Your task to perform on an android device: Add logitech g pro to the cart on amazon, then select checkout. Image 0: 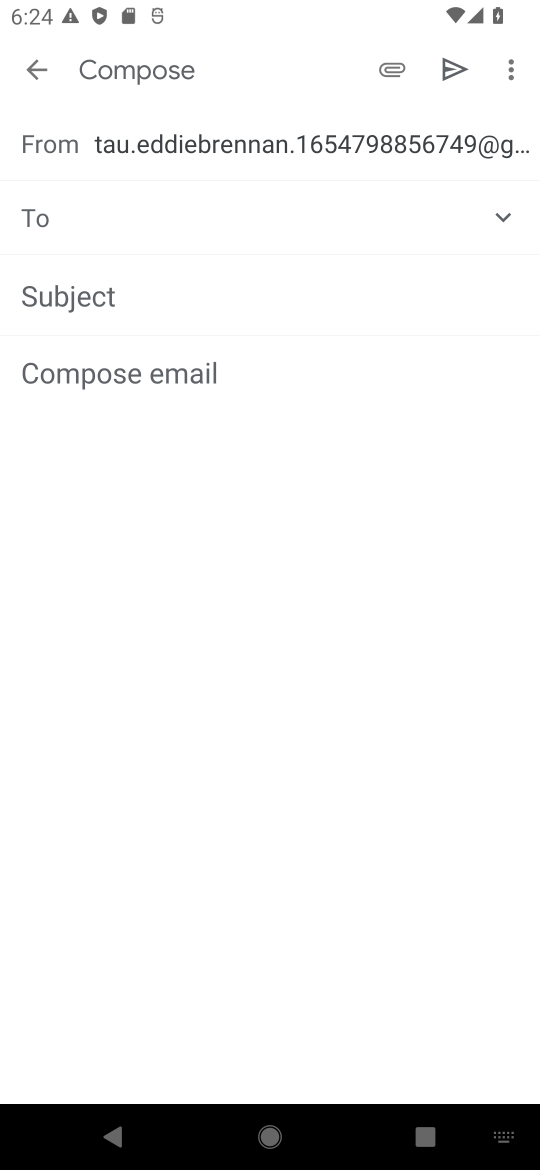
Step 0: press home button
Your task to perform on an android device: Add logitech g pro to the cart on amazon, then select checkout. Image 1: 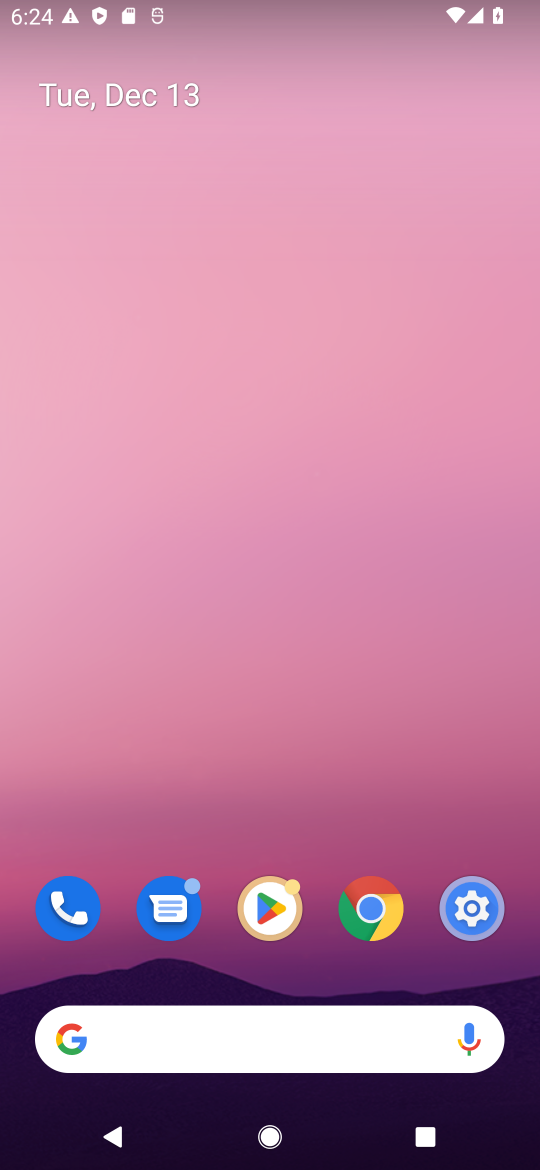
Step 1: click (120, 1033)
Your task to perform on an android device: Add logitech g pro to the cart on amazon, then select checkout. Image 2: 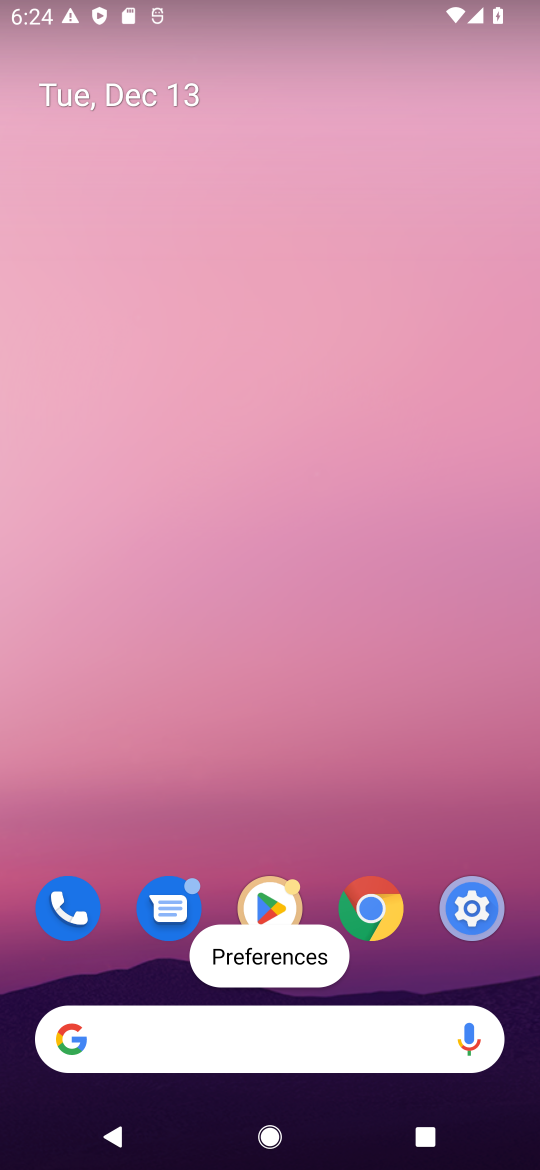
Step 2: click (107, 1036)
Your task to perform on an android device: Add logitech g pro to the cart on amazon, then select checkout. Image 3: 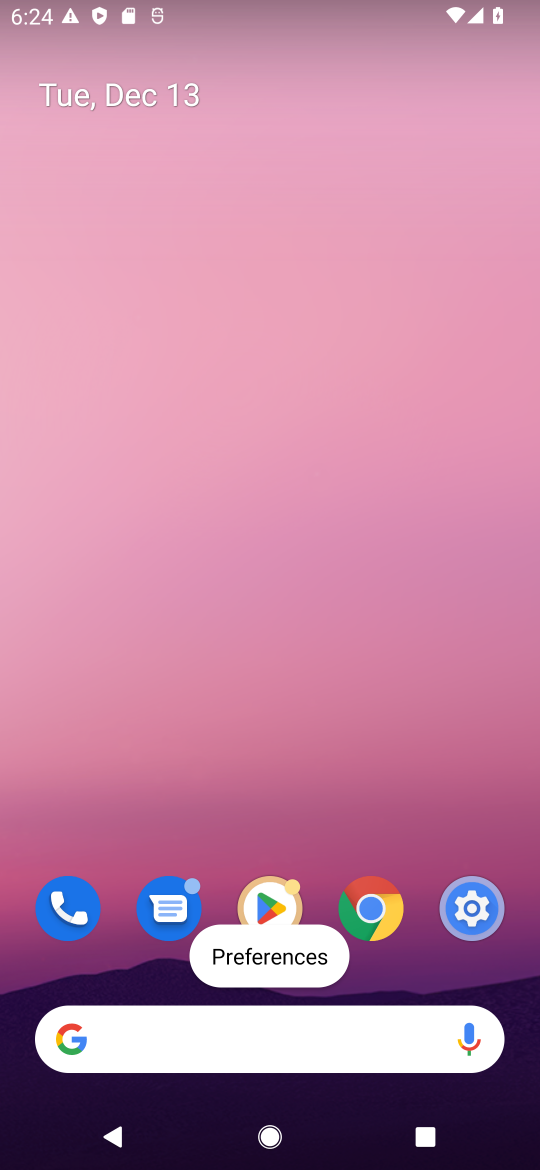
Step 3: click (139, 1043)
Your task to perform on an android device: Add logitech g pro to the cart on amazon, then select checkout. Image 4: 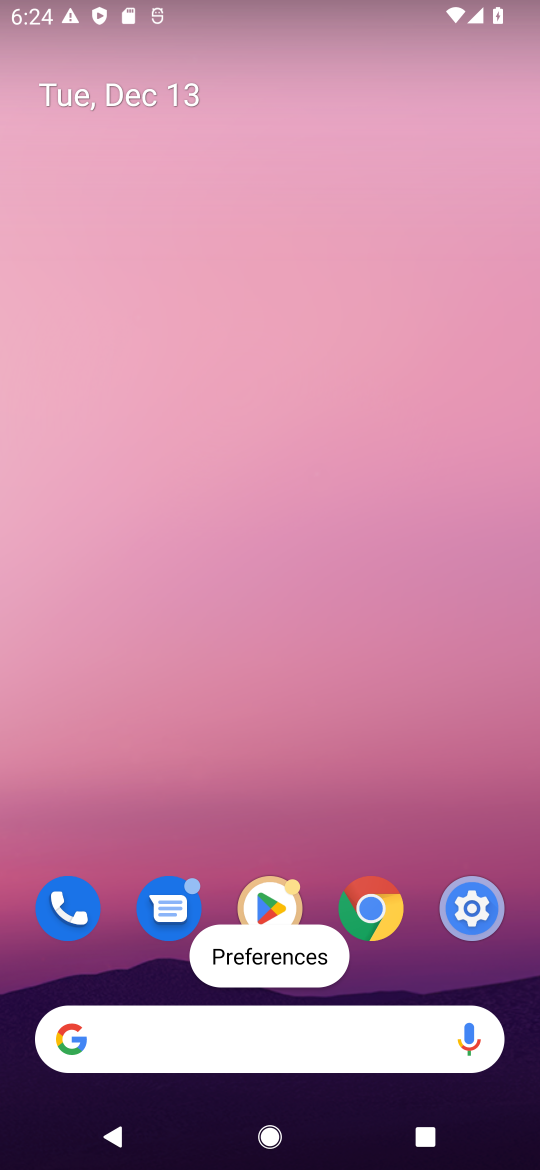
Step 4: click (333, 1033)
Your task to perform on an android device: Add logitech g pro to the cart on amazon, then select checkout. Image 5: 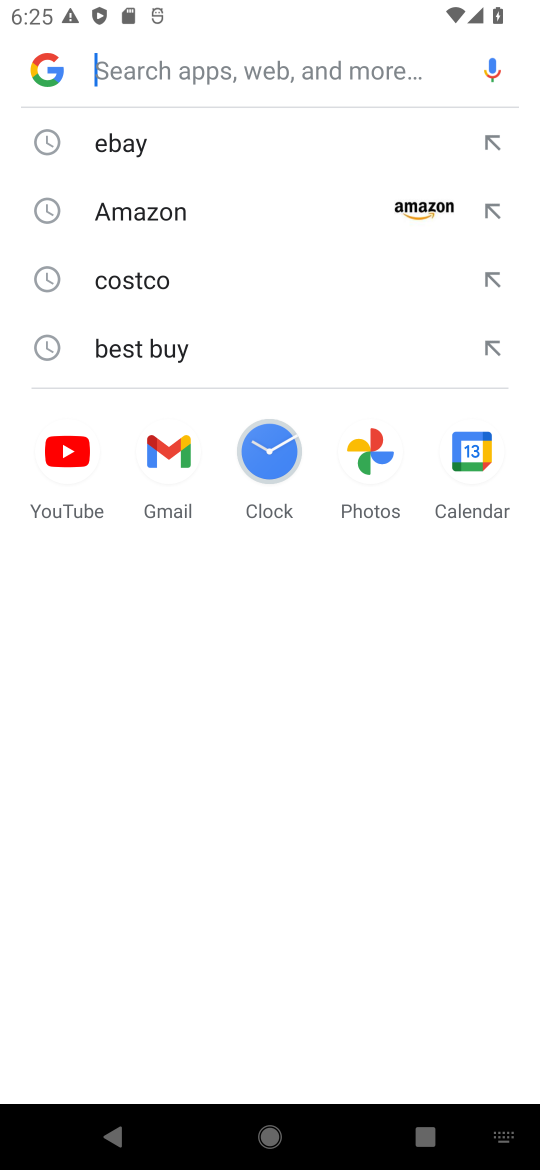
Step 5: type "amazon"
Your task to perform on an android device: Add logitech g pro to the cart on amazon, then select checkout. Image 6: 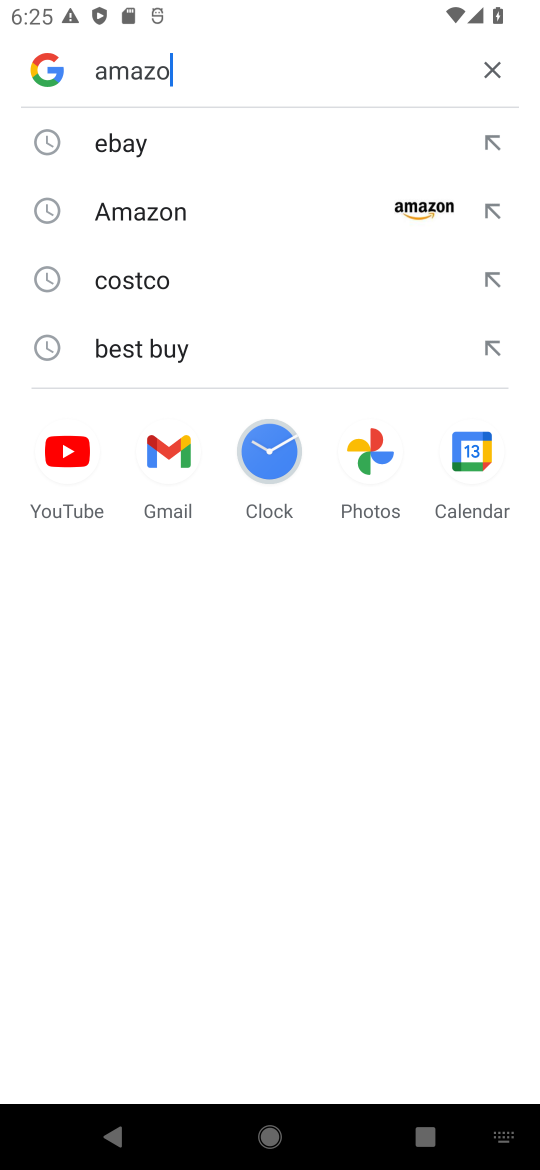
Step 6: press enter
Your task to perform on an android device: Add logitech g pro to the cart on amazon, then select checkout. Image 7: 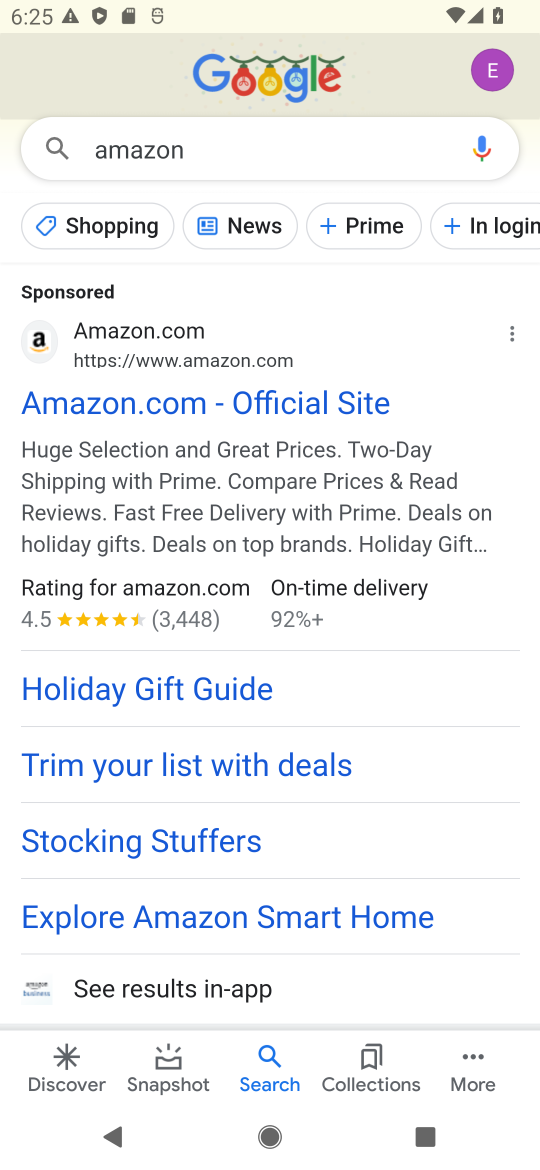
Step 7: click (268, 404)
Your task to perform on an android device: Add logitech g pro to the cart on amazon, then select checkout. Image 8: 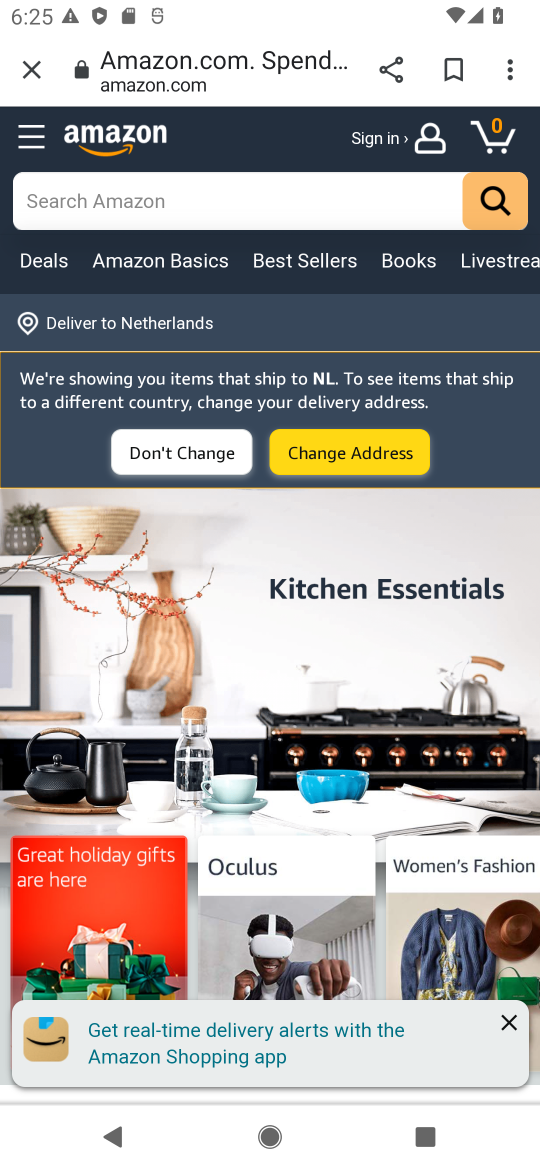
Step 8: click (91, 199)
Your task to perform on an android device: Add logitech g pro to the cart on amazon, then select checkout. Image 9: 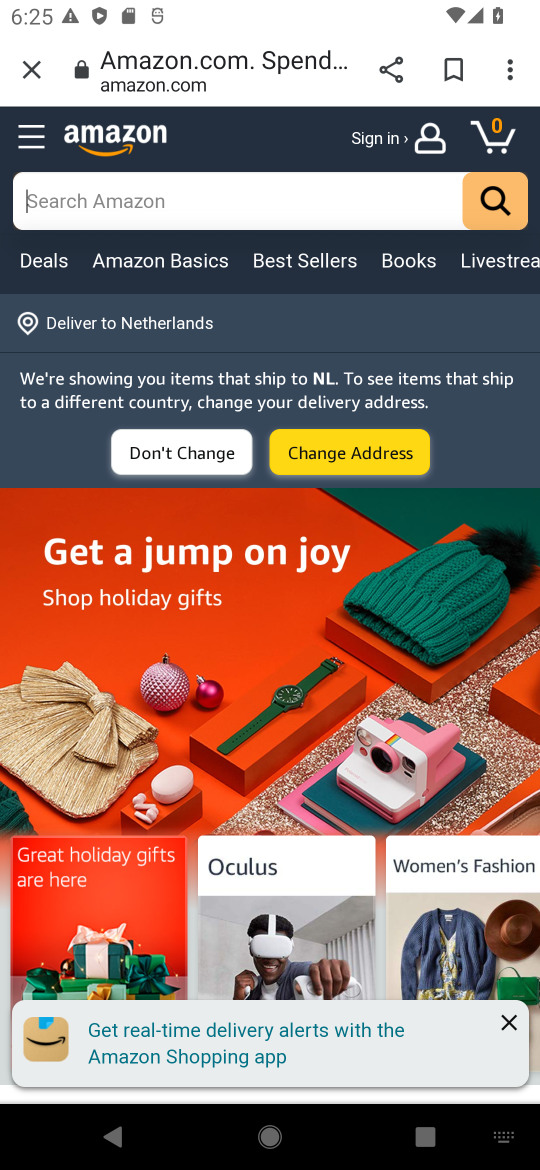
Step 9: type "logitech g pro "
Your task to perform on an android device: Add logitech g pro to the cart on amazon, then select checkout. Image 10: 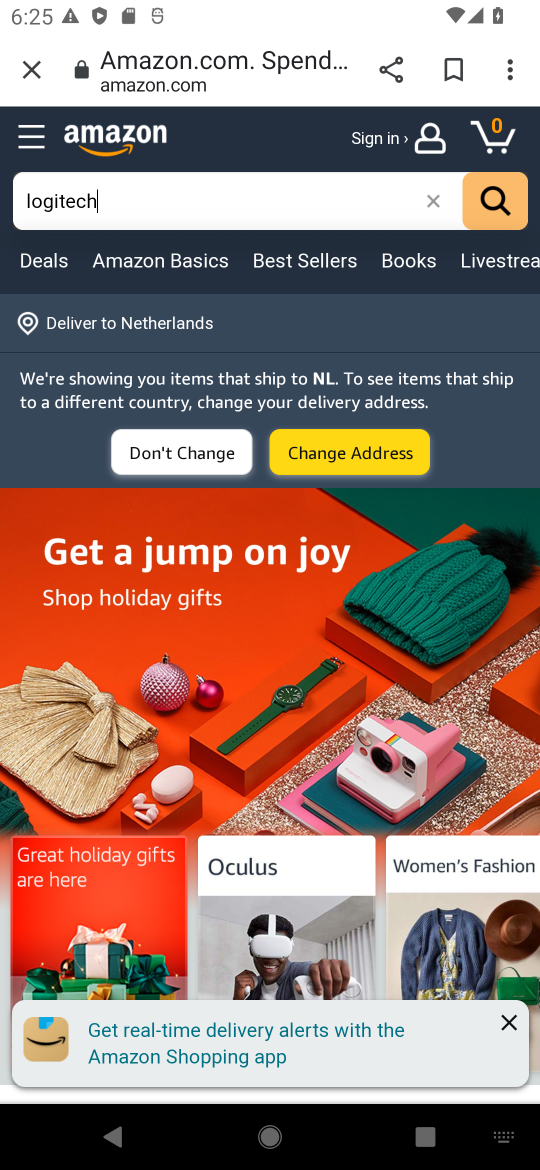
Step 10: press enter
Your task to perform on an android device: Add logitech g pro to the cart on amazon, then select checkout. Image 11: 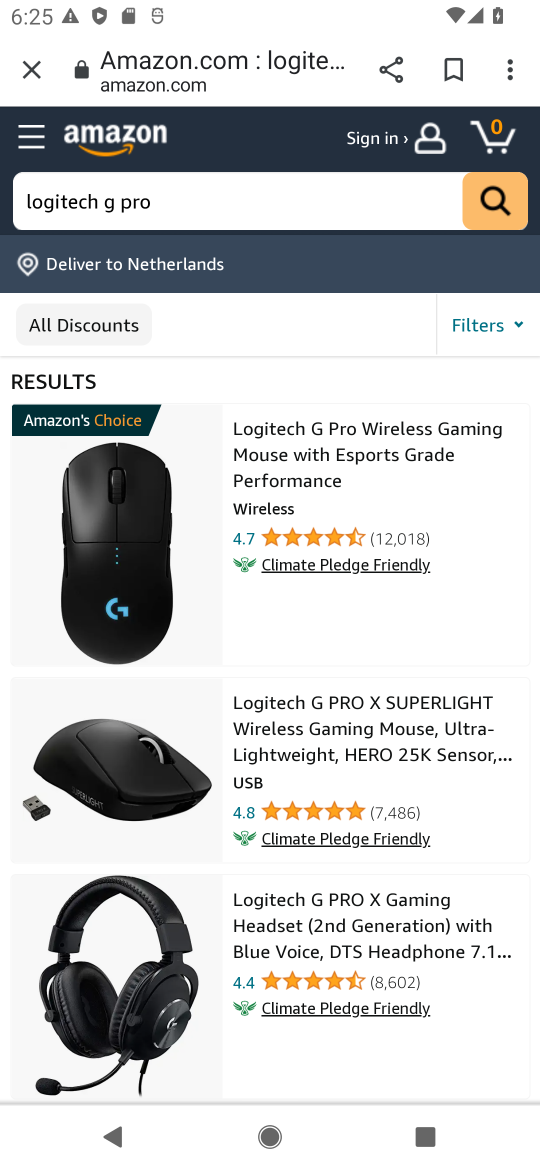
Step 11: press enter
Your task to perform on an android device: Add logitech g pro to the cart on amazon, then select checkout. Image 12: 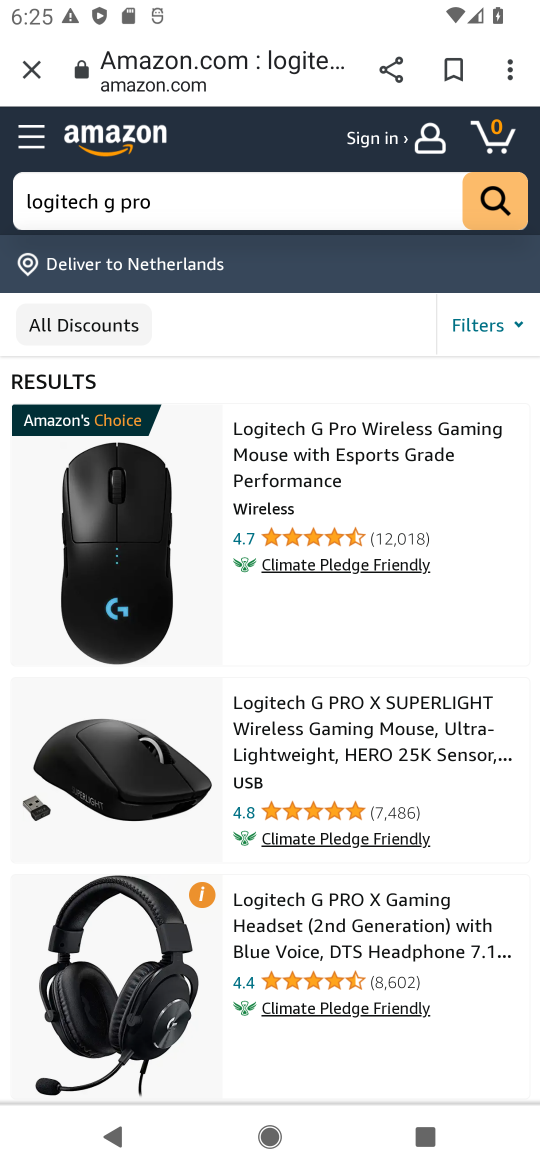
Step 12: click (281, 467)
Your task to perform on an android device: Add logitech g pro to the cart on amazon, then select checkout. Image 13: 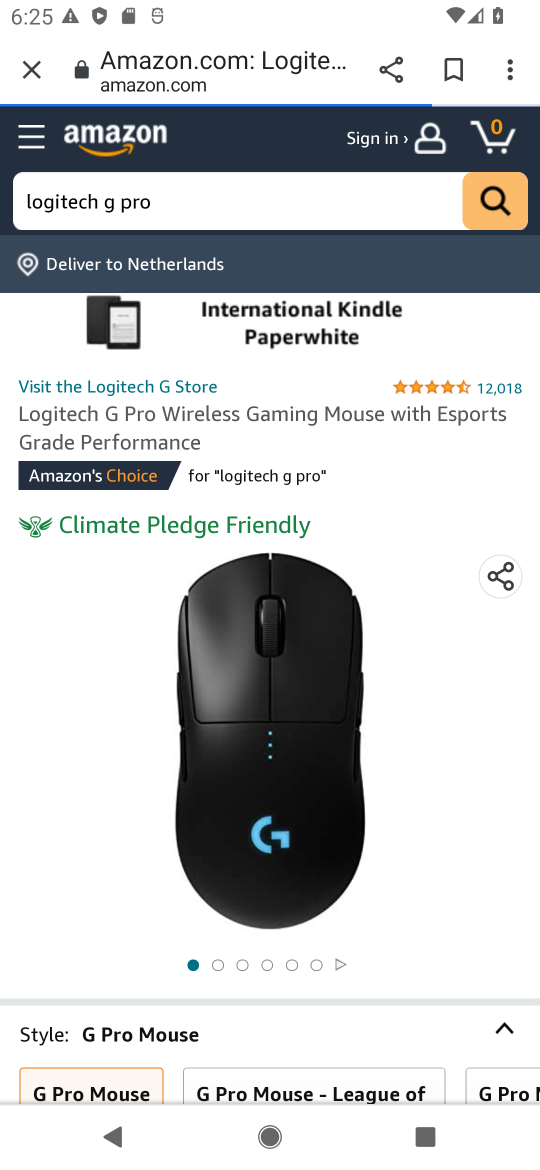
Step 13: task complete